Your task to perform on an android device: open app "WhatsApp Messenger" (install if not already installed), go to login, and select forgot password Image 0: 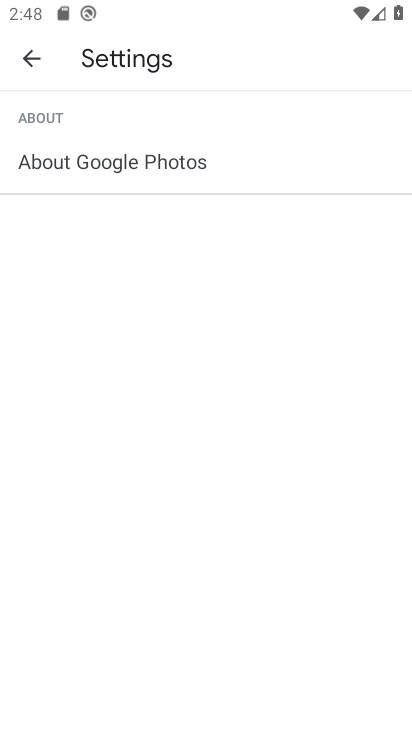
Step 0: press back button
Your task to perform on an android device: open app "WhatsApp Messenger" (install if not already installed), go to login, and select forgot password Image 1: 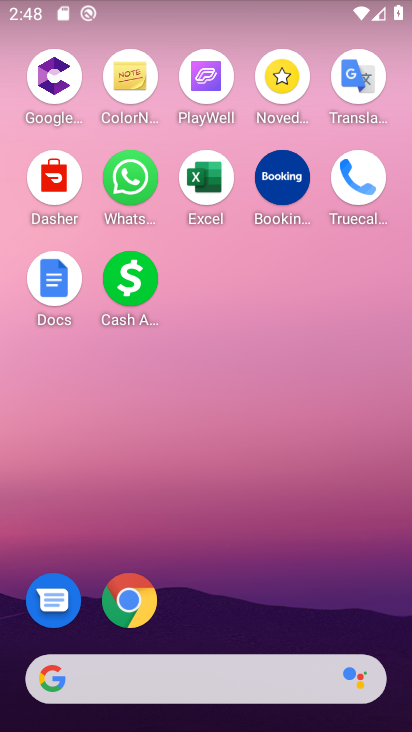
Step 1: drag from (230, 624) to (287, 121)
Your task to perform on an android device: open app "WhatsApp Messenger" (install if not already installed), go to login, and select forgot password Image 2: 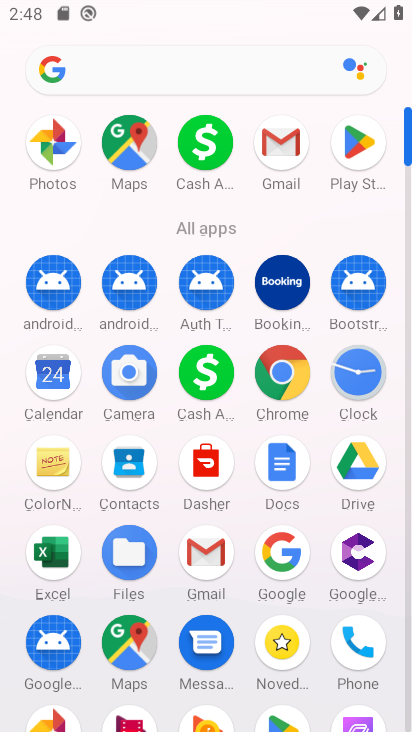
Step 2: click (358, 142)
Your task to perform on an android device: open app "WhatsApp Messenger" (install if not already installed), go to login, and select forgot password Image 3: 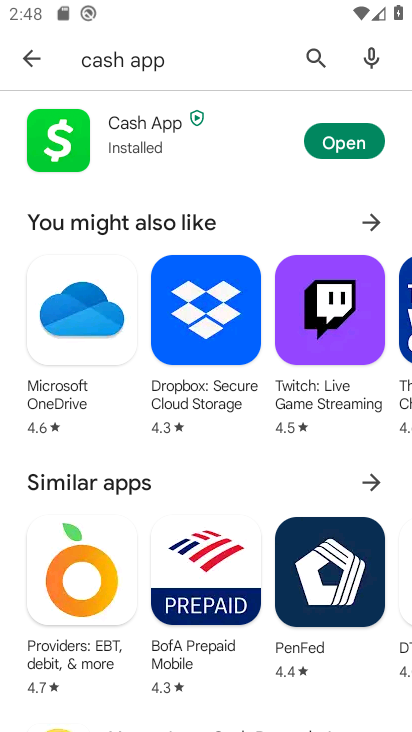
Step 3: click (325, 54)
Your task to perform on an android device: open app "WhatsApp Messenger" (install if not already installed), go to login, and select forgot password Image 4: 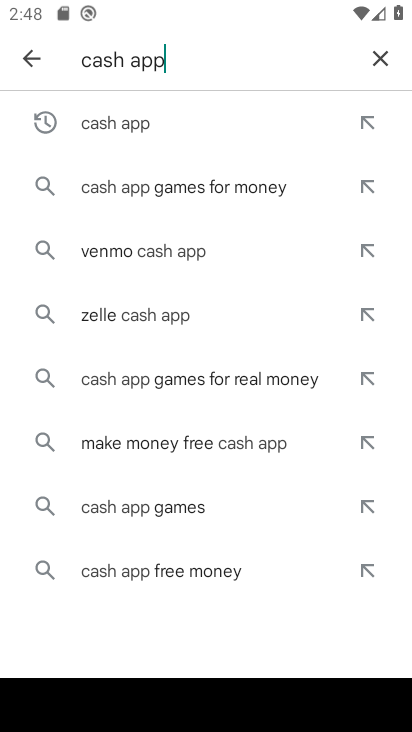
Step 4: click (376, 50)
Your task to perform on an android device: open app "WhatsApp Messenger" (install if not already installed), go to login, and select forgot password Image 5: 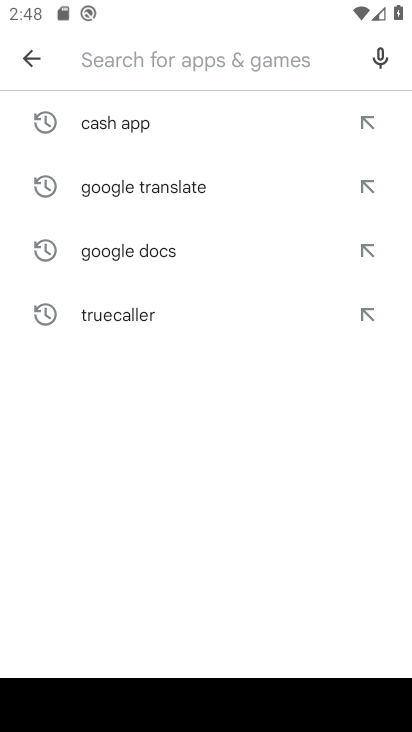
Step 5: click (122, 51)
Your task to perform on an android device: open app "WhatsApp Messenger" (install if not already installed), go to login, and select forgot password Image 6: 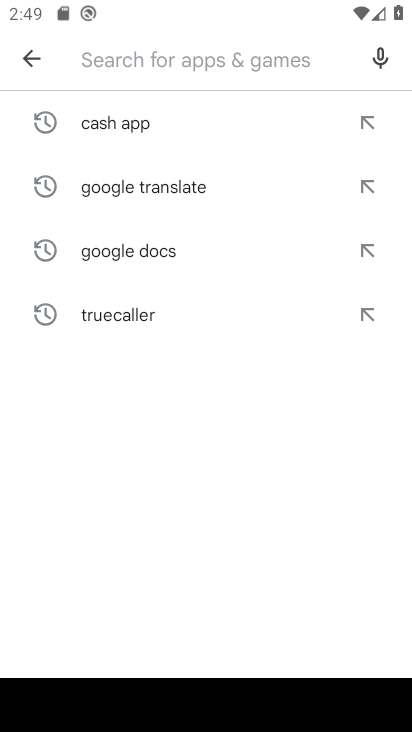
Step 6: type "WhatsApp Messenger"
Your task to perform on an android device: open app "WhatsApp Messenger" (install if not already installed), go to login, and select forgot password Image 7: 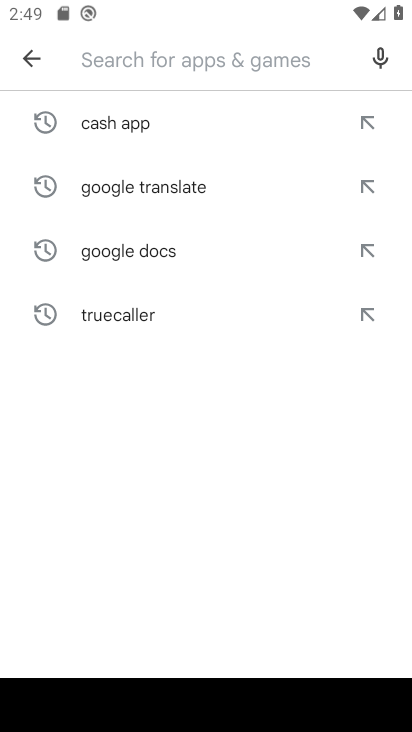
Step 7: click (309, 528)
Your task to perform on an android device: open app "WhatsApp Messenger" (install if not already installed), go to login, and select forgot password Image 8: 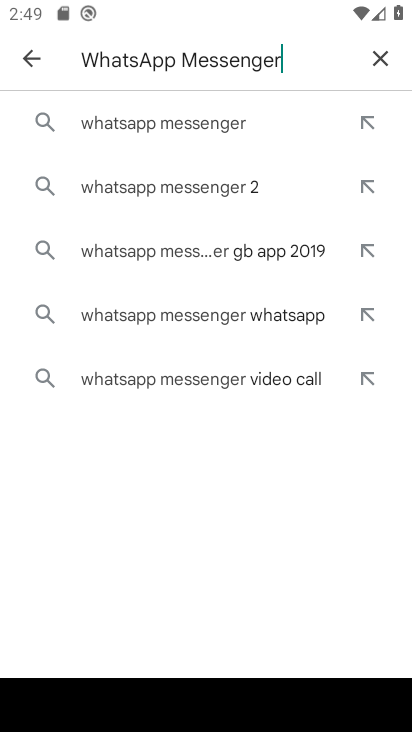
Step 8: click (147, 104)
Your task to perform on an android device: open app "WhatsApp Messenger" (install if not already installed), go to login, and select forgot password Image 9: 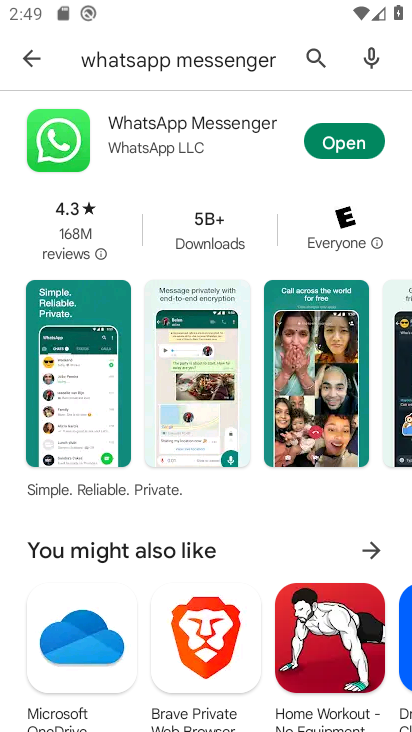
Step 9: click (342, 145)
Your task to perform on an android device: open app "WhatsApp Messenger" (install if not already installed), go to login, and select forgot password Image 10: 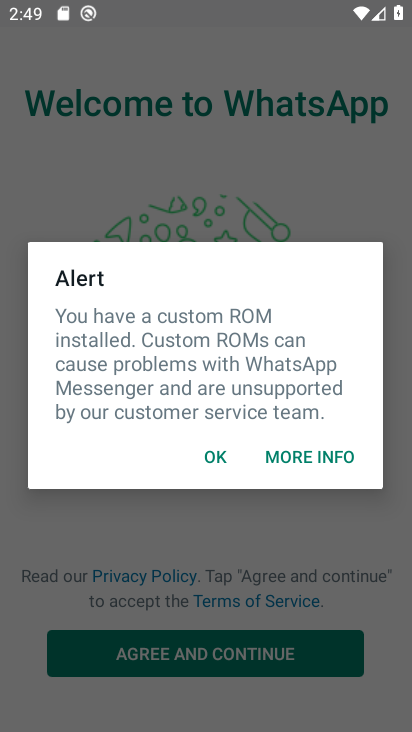
Step 10: click (213, 455)
Your task to perform on an android device: open app "WhatsApp Messenger" (install if not already installed), go to login, and select forgot password Image 11: 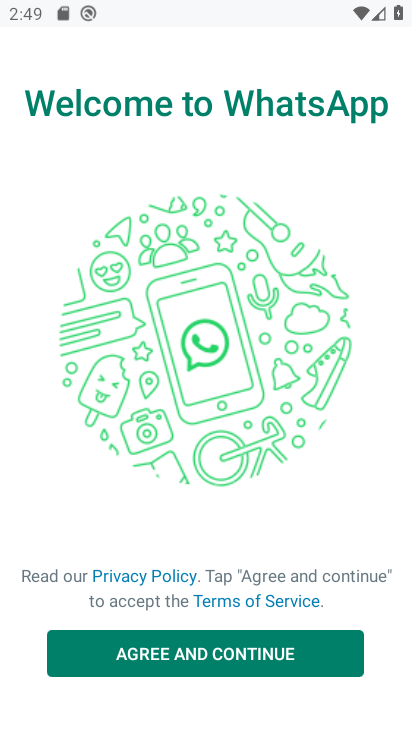
Step 11: click (168, 656)
Your task to perform on an android device: open app "WhatsApp Messenger" (install if not already installed), go to login, and select forgot password Image 12: 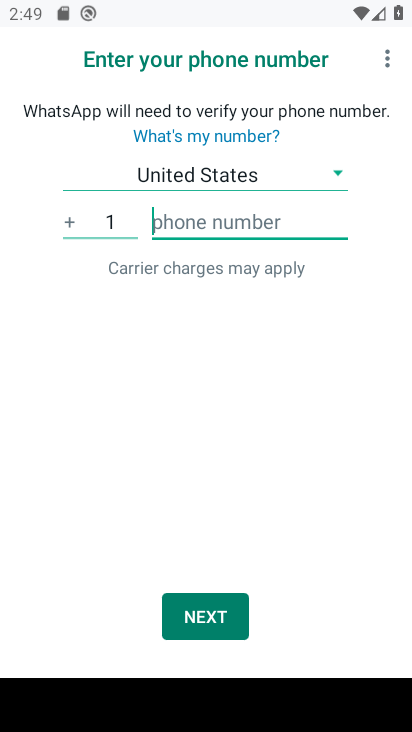
Step 12: task complete